Your task to perform on an android device: Turn off the flashlight Image 0: 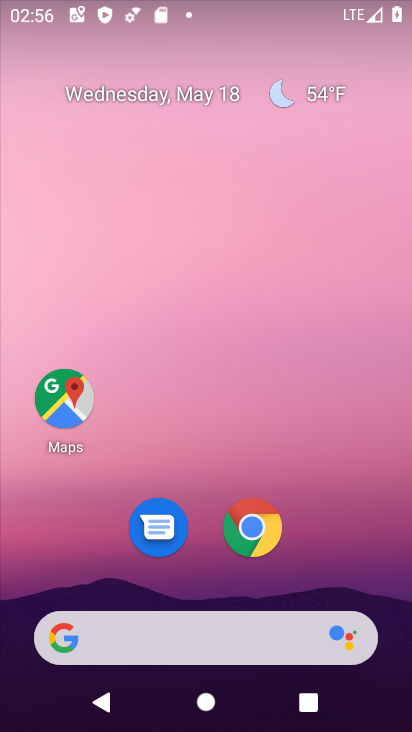
Step 0: drag from (190, 603) to (178, 4)
Your task to perform on an android device: Turn off the flashlight Image 1: 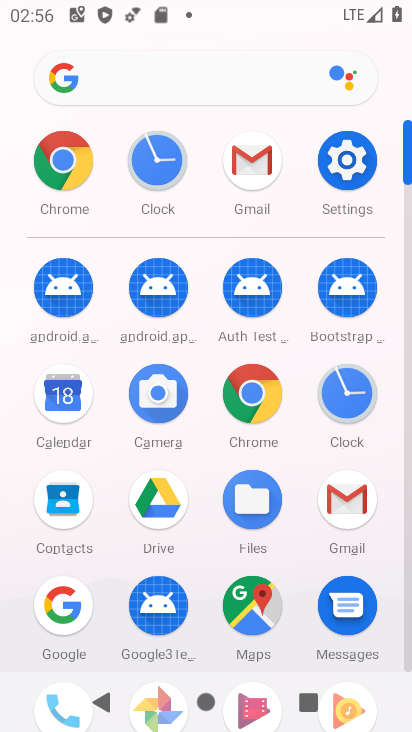
Step 1: click (341, 165)
Your task to perform on an android device: Turn off the flashlight Image 2: 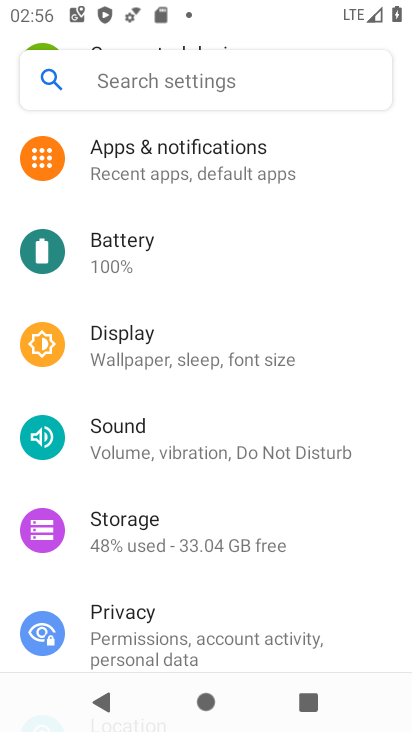
Step 2: task complete